Your task to perform on an android device: Open calendar and show me the first week of next month Image 0: 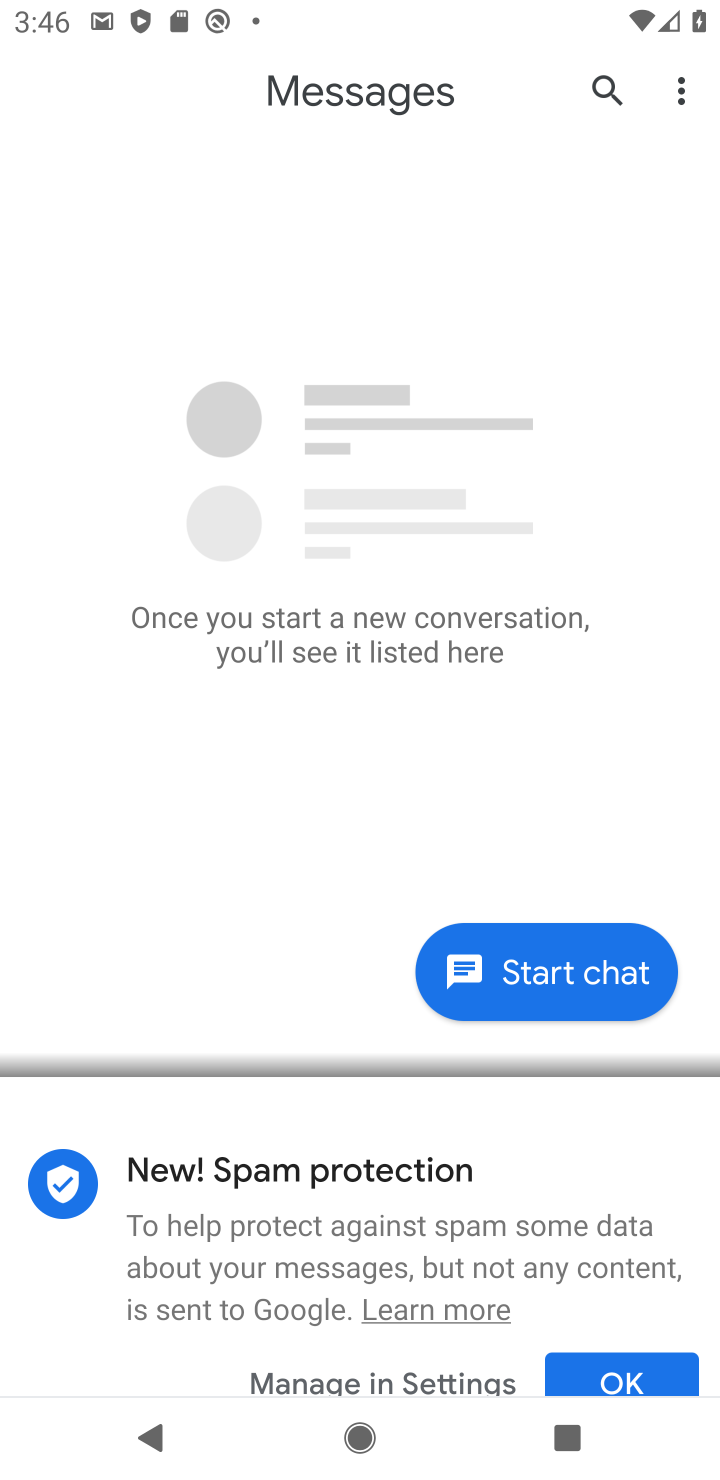
Step 0: press home button
Your task to perform on an android device: Open calendar and show me the first week of next month Image 1: 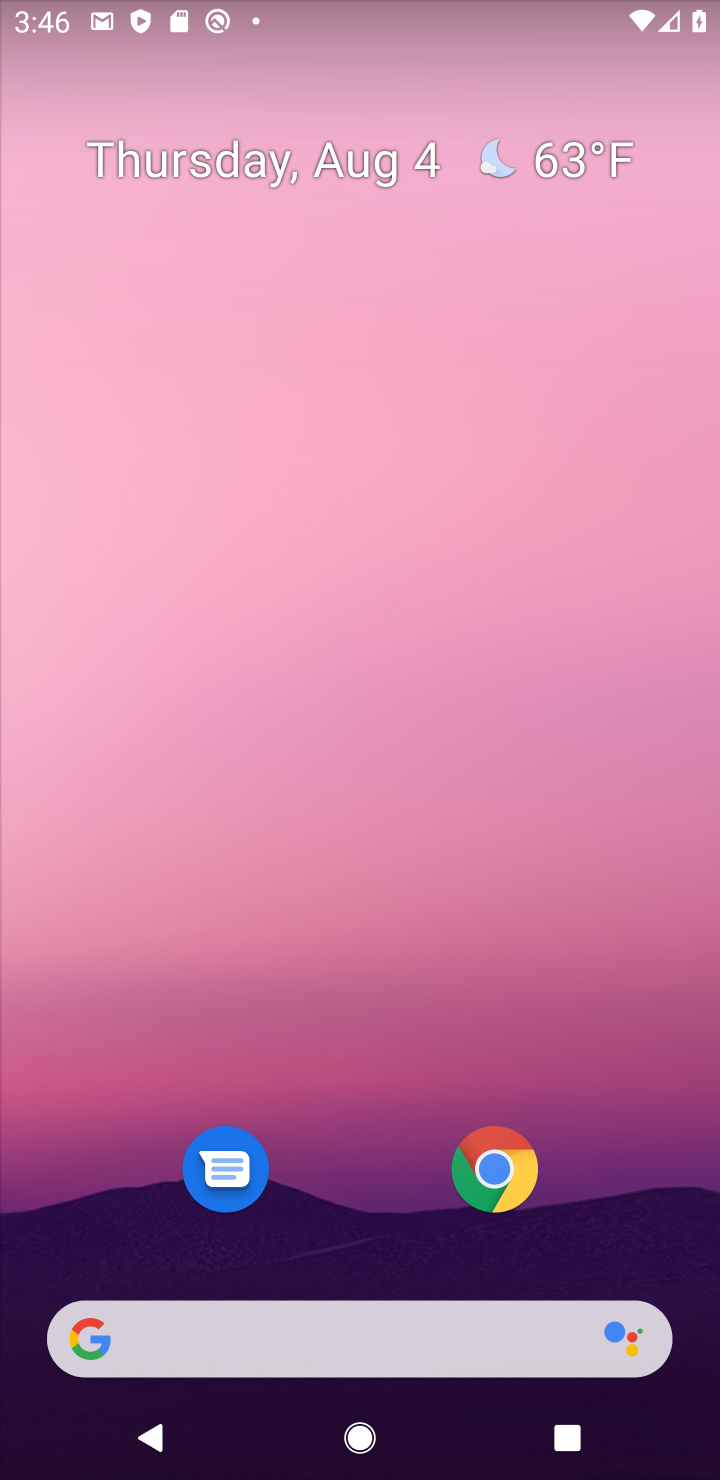
Step 1: drag from (325, 1005) to (363, 336)
Your task to perform on an android device: Open calendar and show me the first week of next month Image 2: 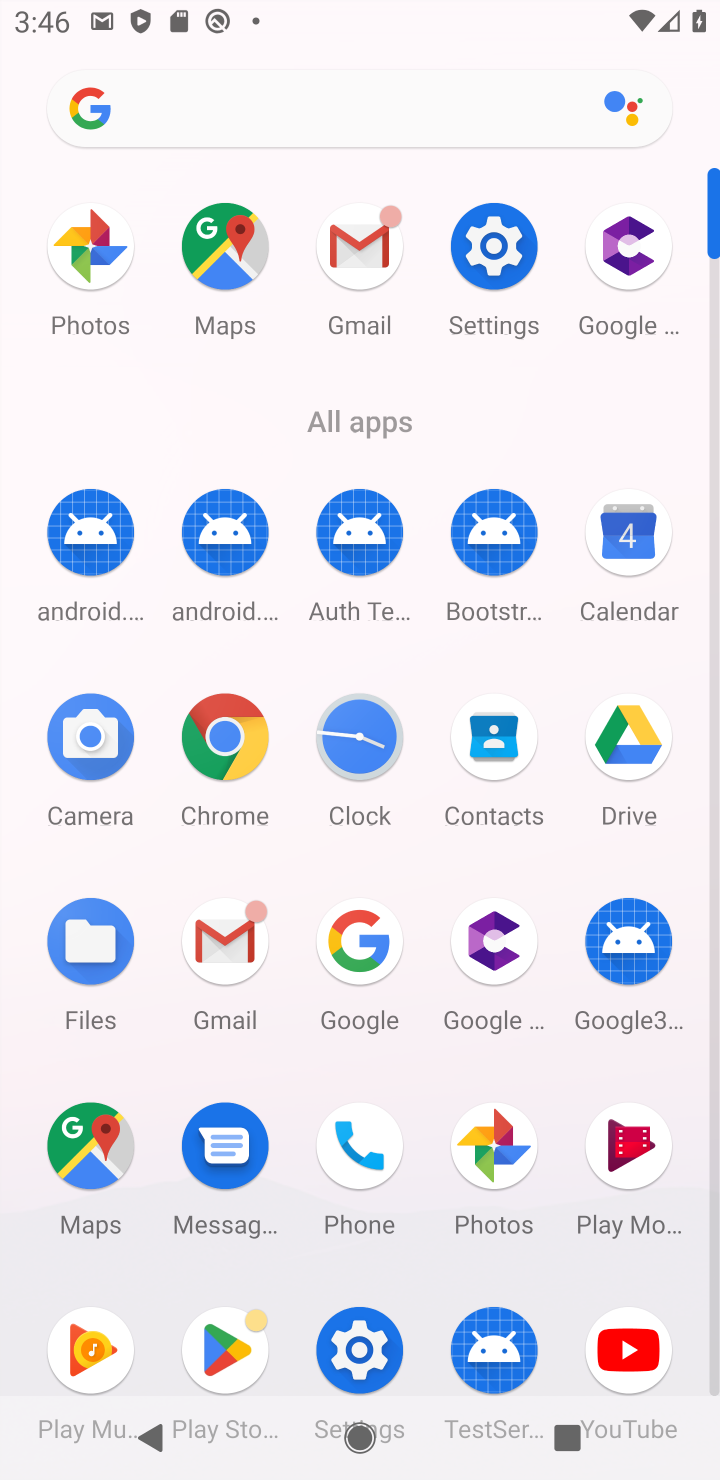
Step 2: click (624, 582)
Your task to perform on an android device: Open calendar and show me the first week of next month Image 3: 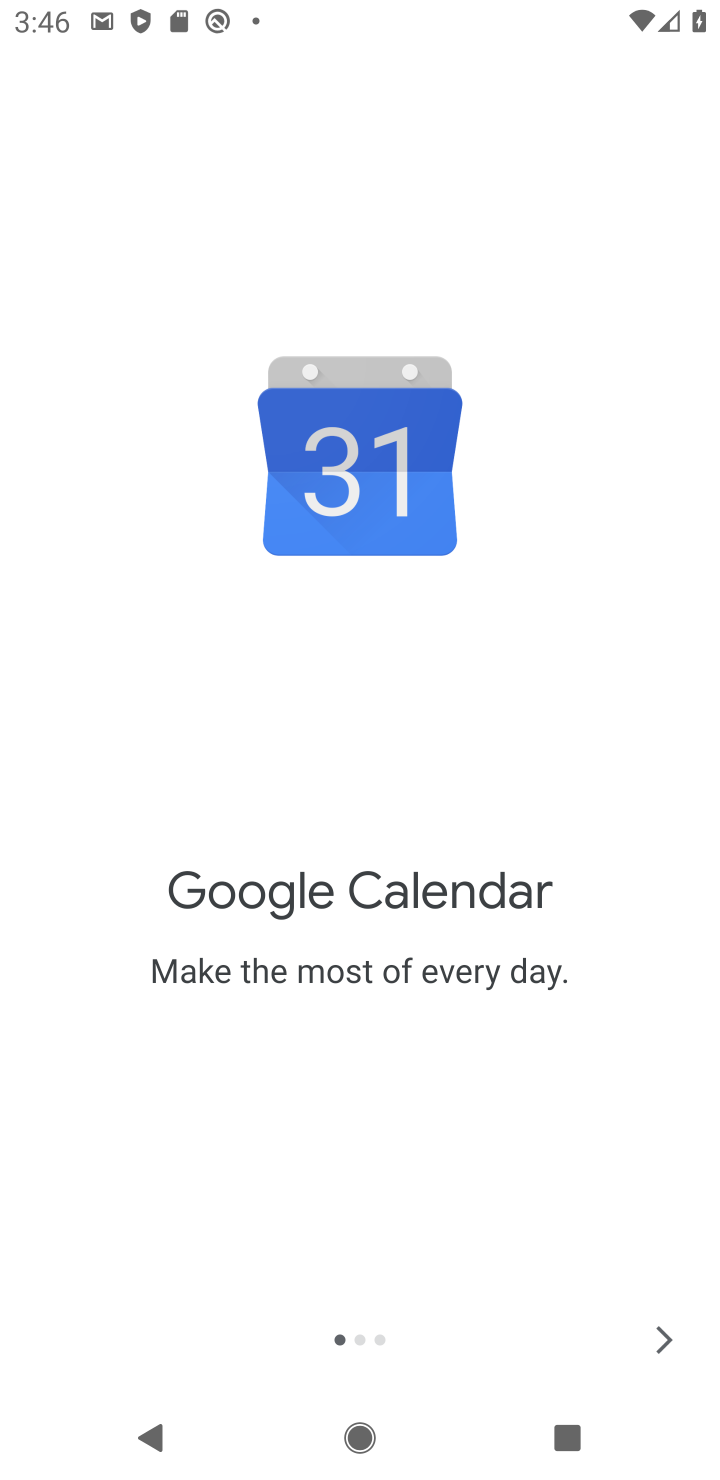
Step 3: click (656, 1327)
Your task to perform on an android device: Open calendar and show me the first week of next month Image 4: 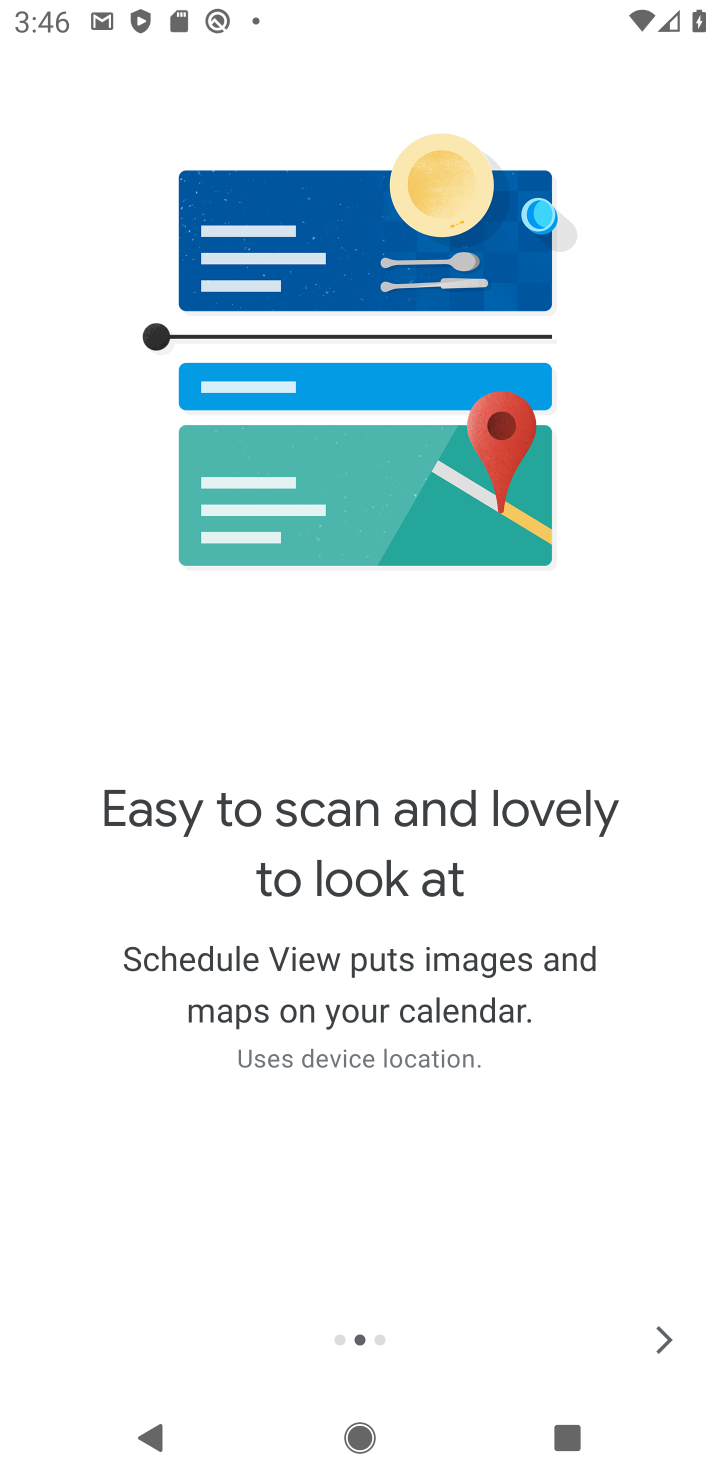
Step 4: click (648, 1331)
Your task to perform on an android device: Open calendar and show me the first week of next month Image 5: 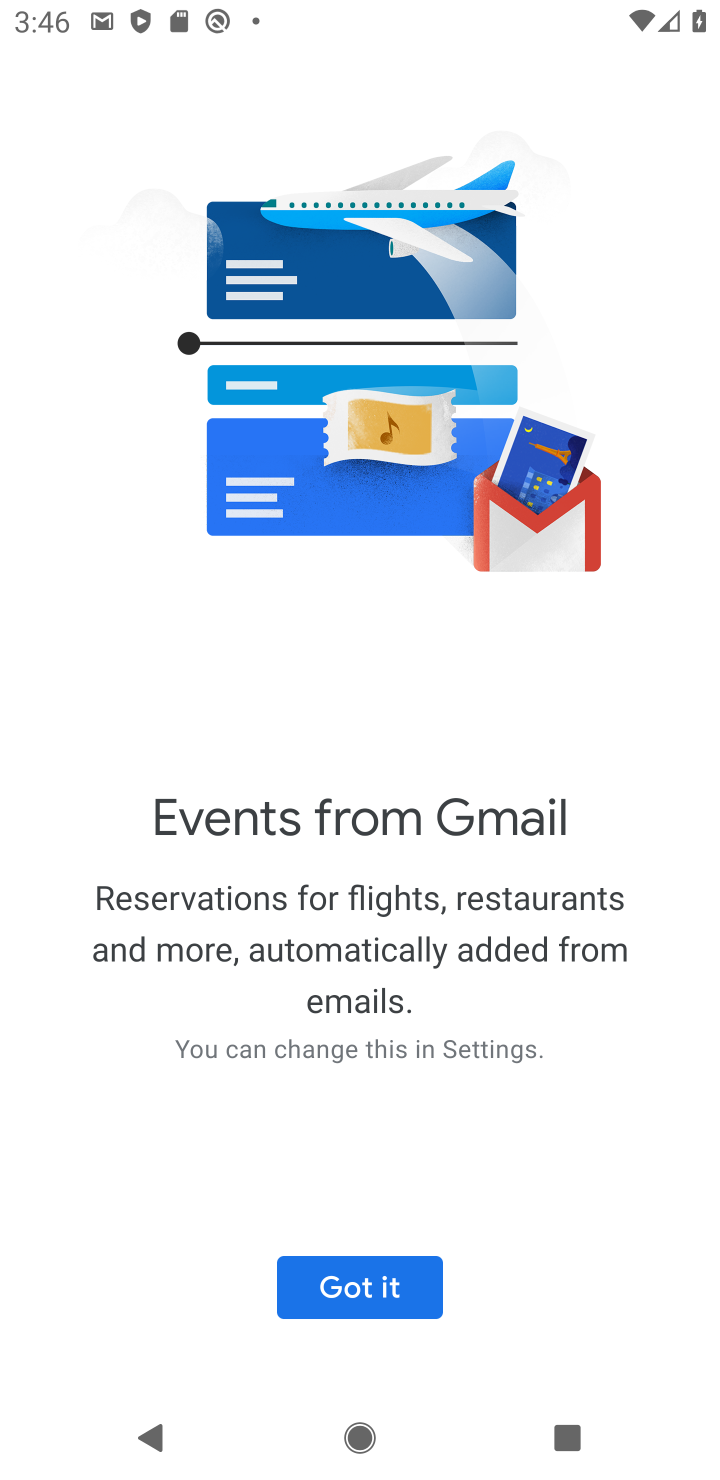
Step 5: click (397, 1292)
Your task to perform on an android device: Open calendar and show me the first week of next month Image 6: 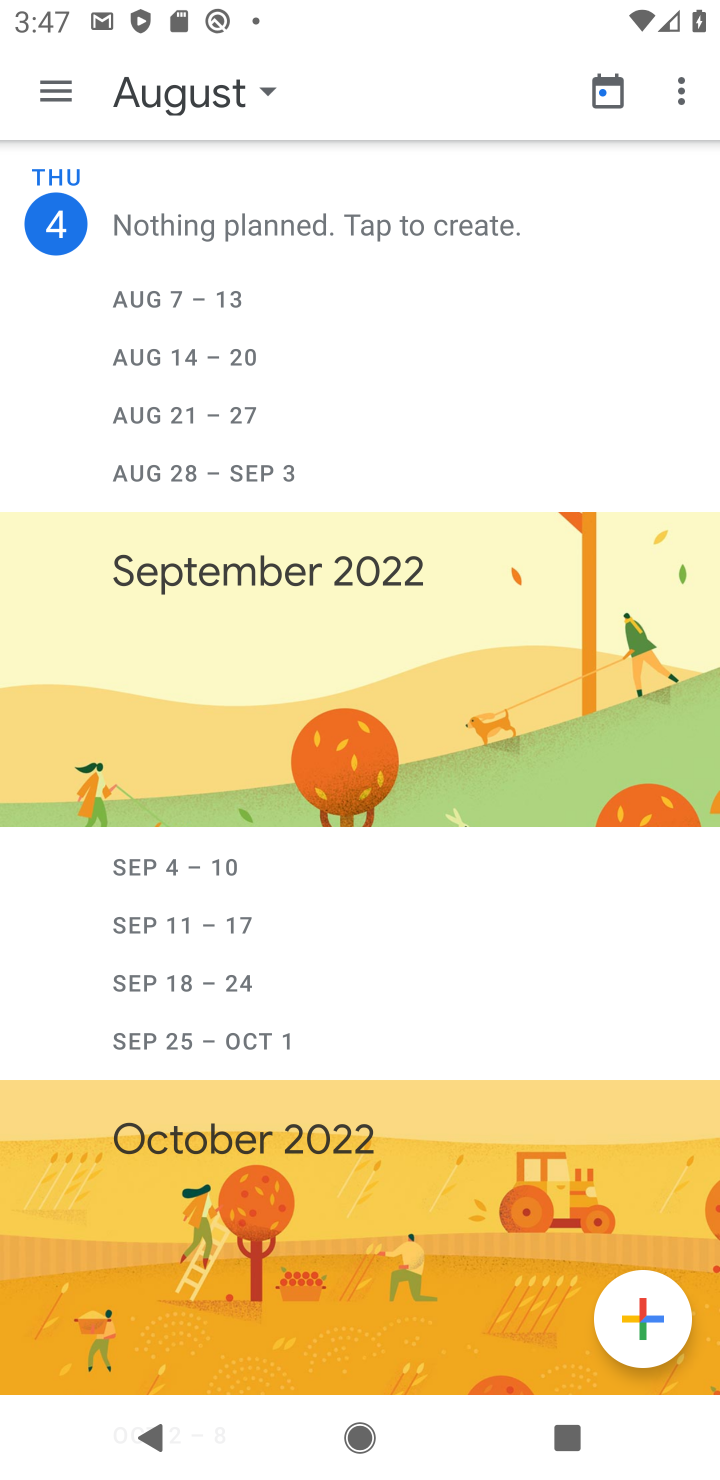
Step 6: click (53, 81)
Your task to perform on an android device: Open calendar and show me the first week of next month Image 7: 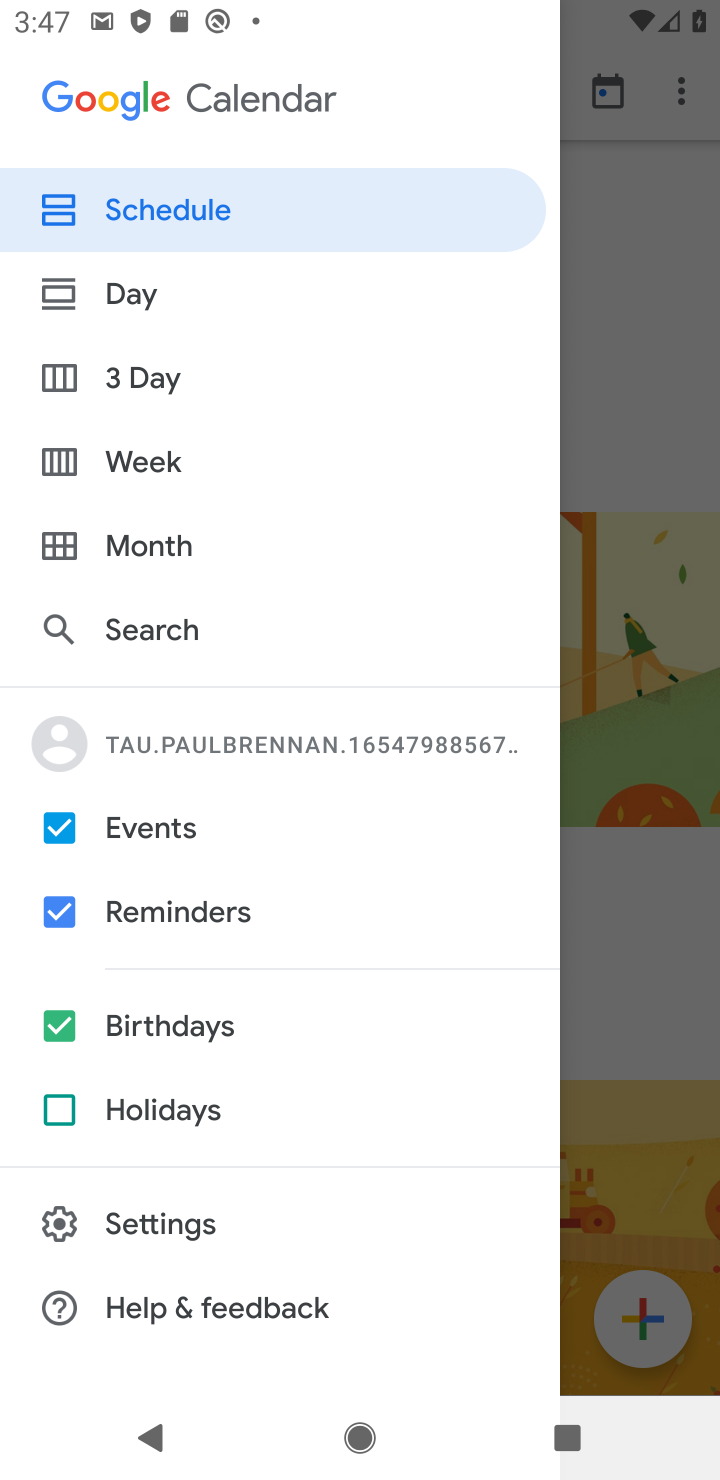
Step 7: click (143, 461)
Your task to perform on an android device: Open calendar and show me the first week of next month Image 8: 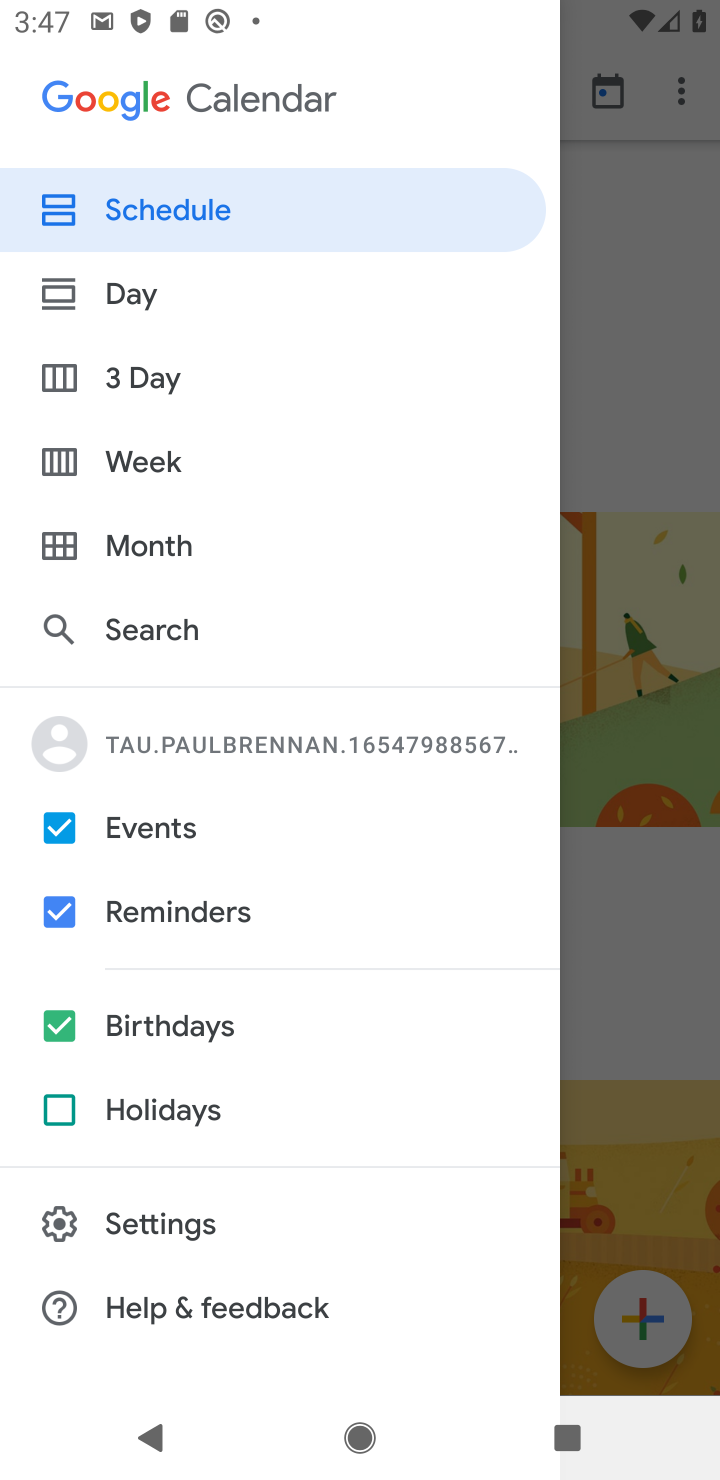
Step 8: click (147, 459)
Your task to perform on an android device: Open calendar and show me the first week of next month Image 9: 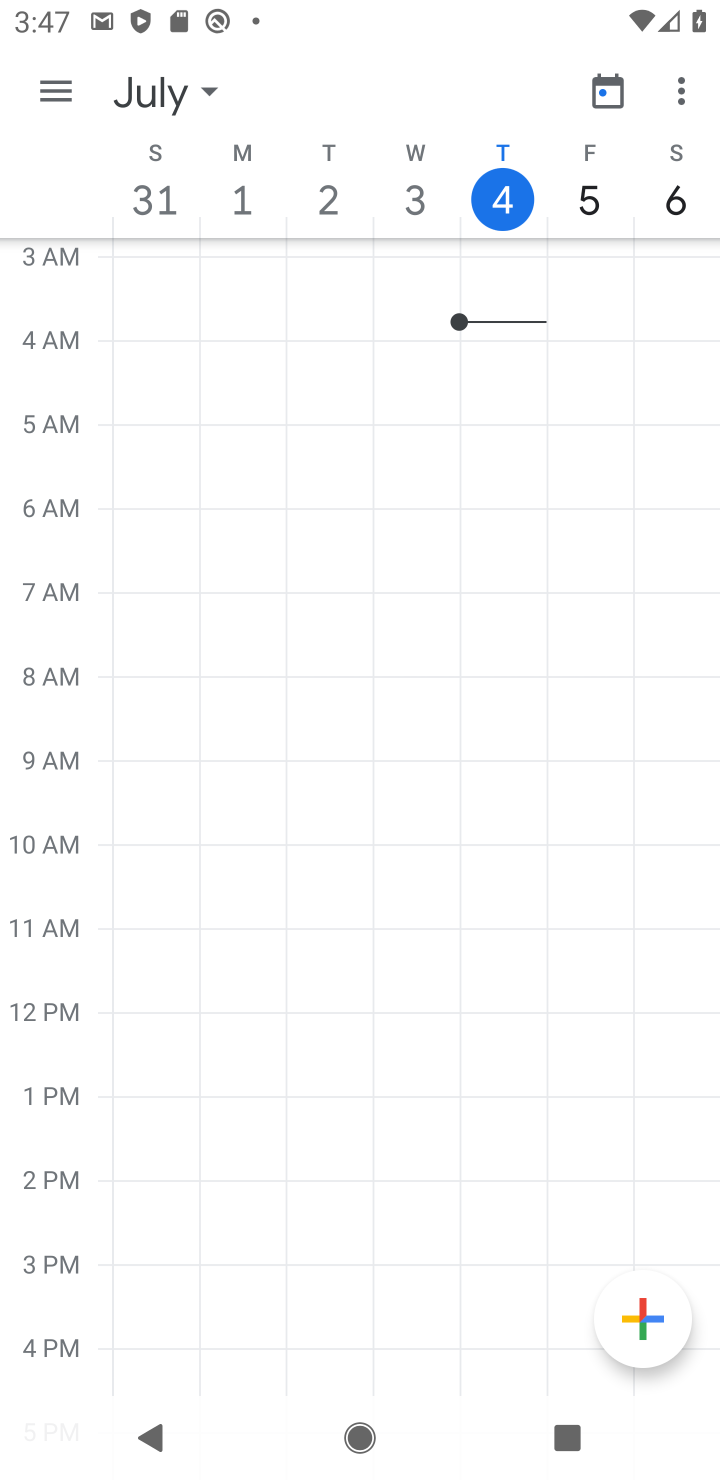
Step 9: task complete